Your task to perform on an android device: turn off location history Image 0: 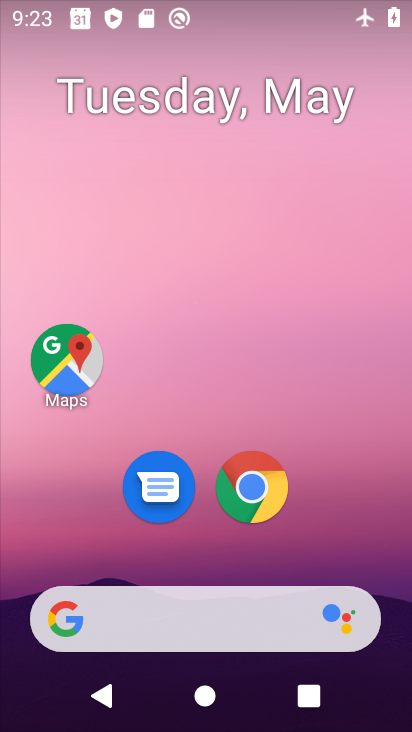
Step 0: drag from (193, 529) to (255, 320)
Your task to perform on an android device: turn off location history Image 1: 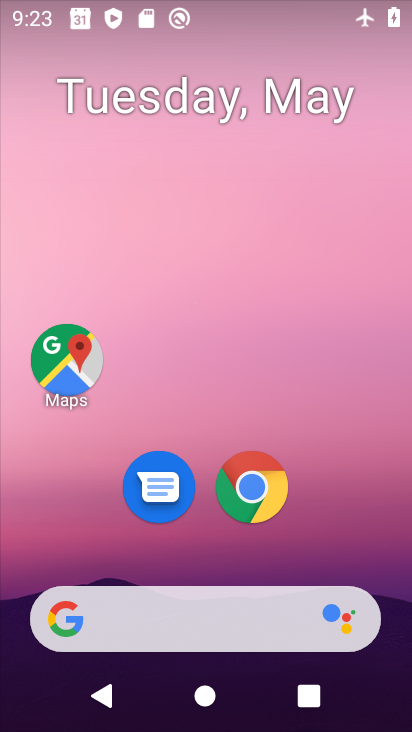
Step 1: drag from (176, 560) to (199, 204)
Your task to perform on an android device: turn off location history Image 2: 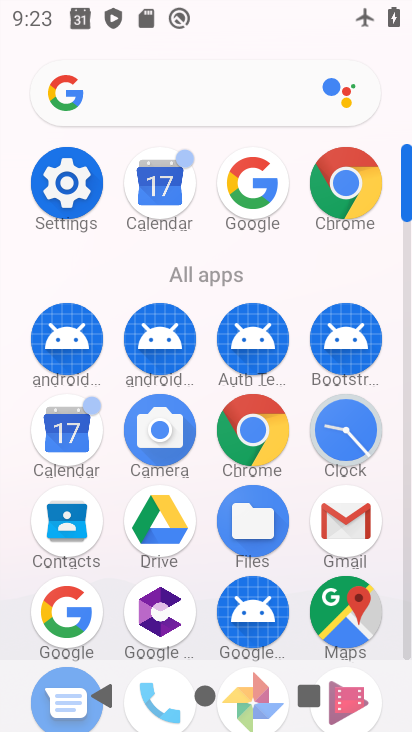
Step 2: click (83, 200)
Your task to perform on an android device: turn off location history Image 3: 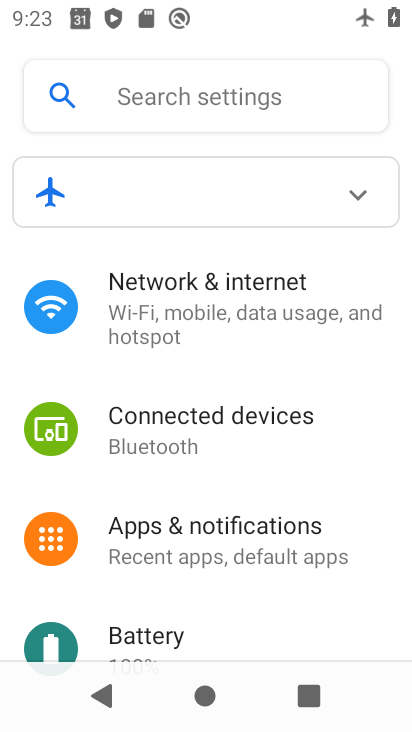
Step 3: drag from (258, 600) to (290, 313)
Your task to perform on an android device: turn off location history Image 4: 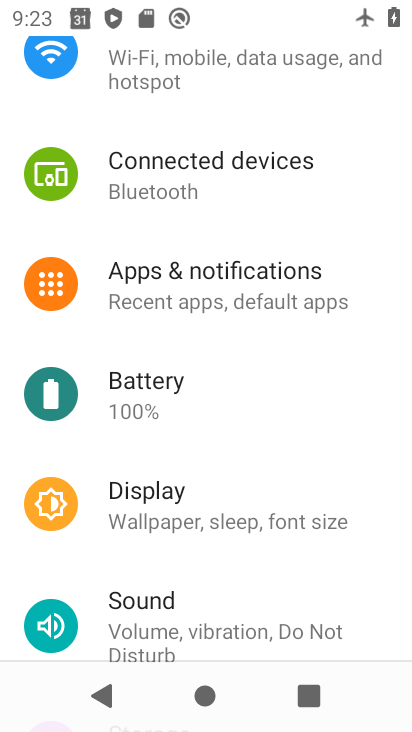
Step 4: drag from (226, 599) to (285, 256)
Your task to perform on an android device: turn off location history Image 5: 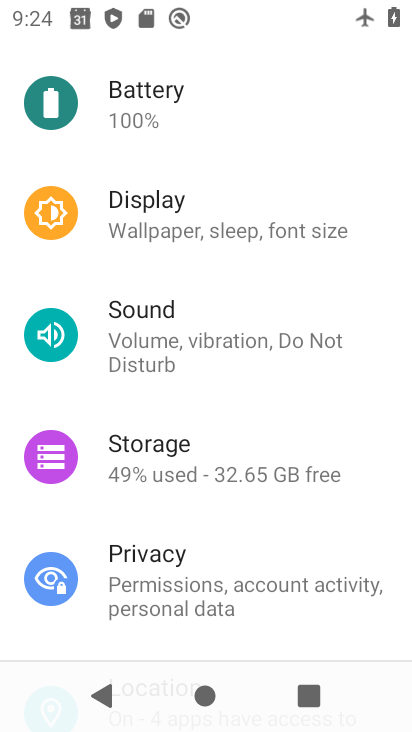
Step 5: drag from (280, 519) to (317, 199)
Your task to perform on an android device: turn off location history Image 6: 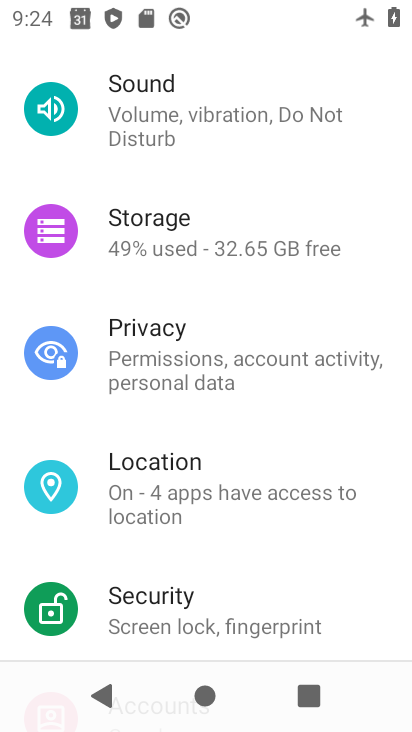
Step 6: click (205, 469)
Your task to perform on an android device: turn off location history Image 7: 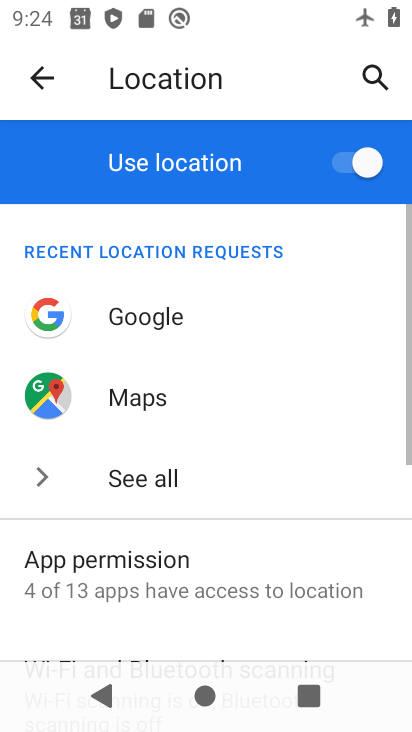
Step 7: drag from (246, 591) to (311, 399)
Your task to perform on an android device: turn off location history Image 8: 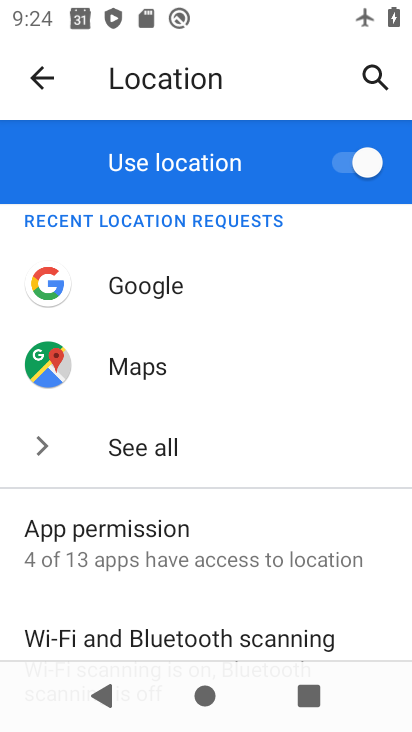
Step 8: drag from (257, 561) to (271, 401)
Your task to perform on an android device: turn off location history Image 9: 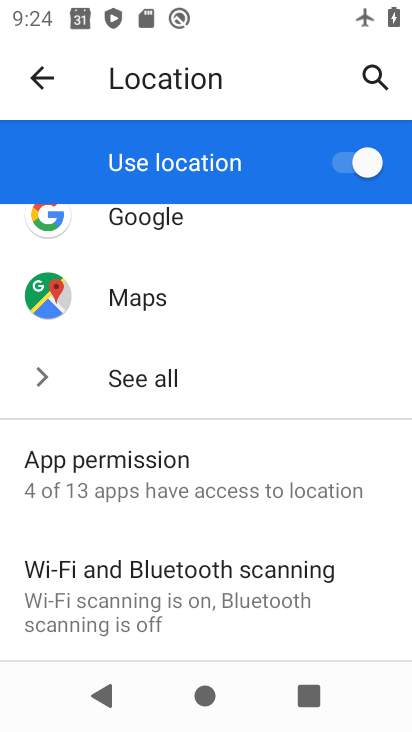
Step 9: drag from (179, 566) to (236, 198)
Your task to perform on an android device: turn off location history Image 10: 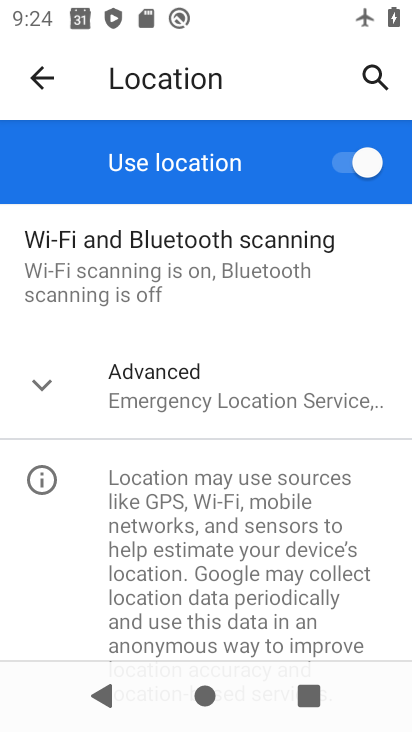
Step 10: click (117, 430)
Your task to perform on an android device: turn off location history Image 11: 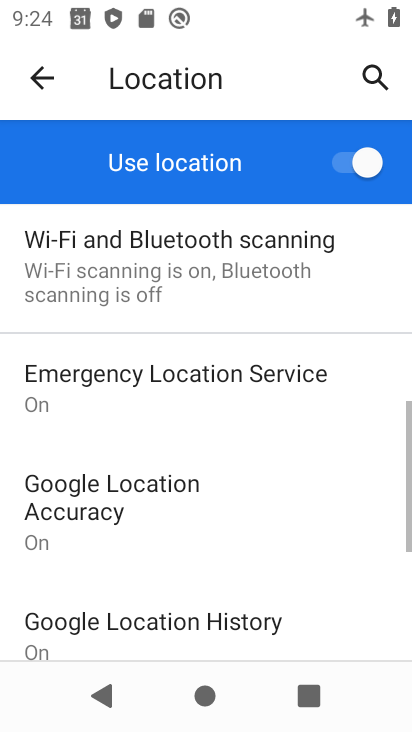
Step 11: drag from (253, 547) to (323, 249)
Your task to perform on an android device: turn off location history Image 12: 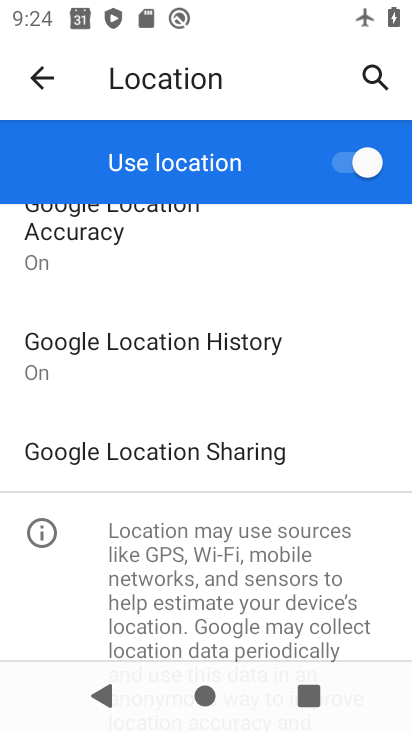
Step 12: click (218, 369)
Your task to perform on an android device: turn off location history Image 13: 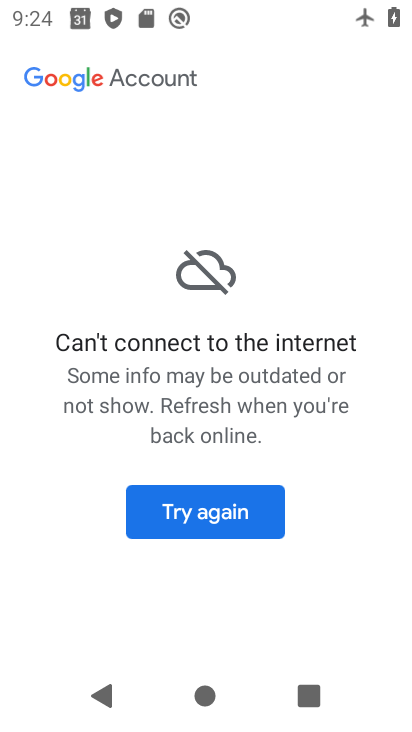
Step 13: click (208, 537)
Your task to perform on an android device: turn off location history Image 14: 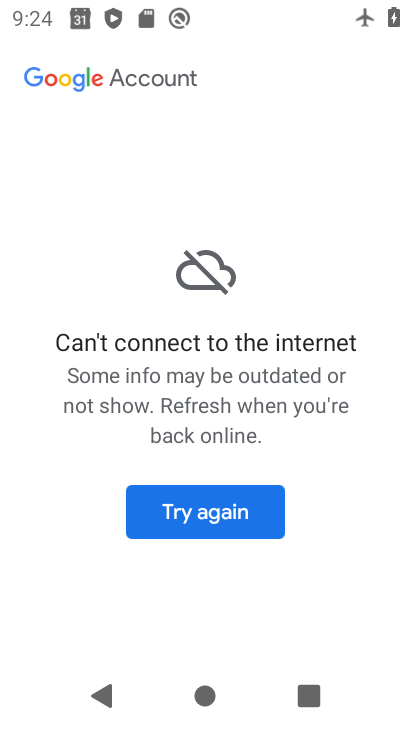
Step 14: task complete